Your task to perform on an android device: What's the weather today? Image 0: 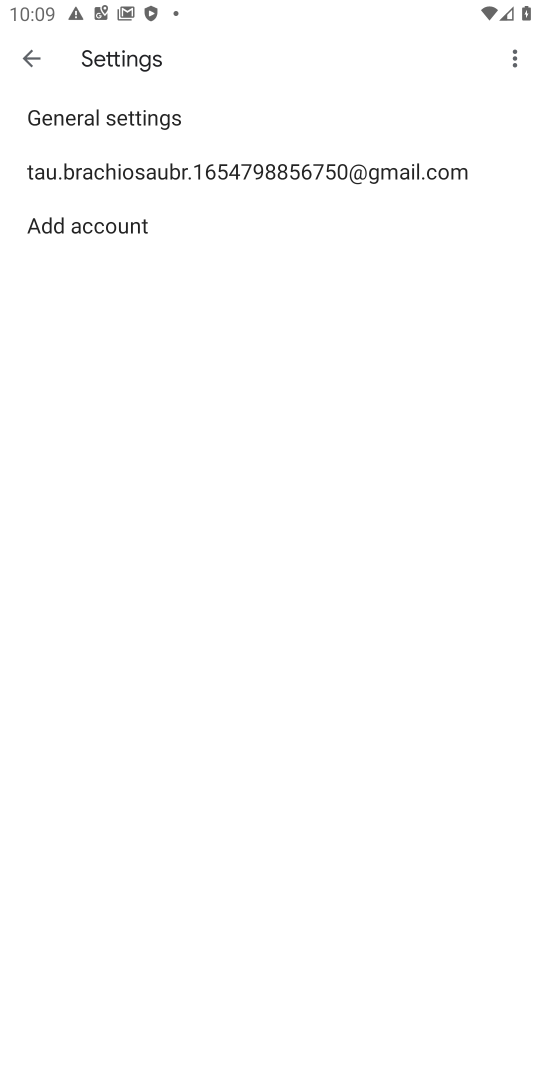
Step 0: press home button
Your task to perform on an android device: What's the weather today? Image 1: 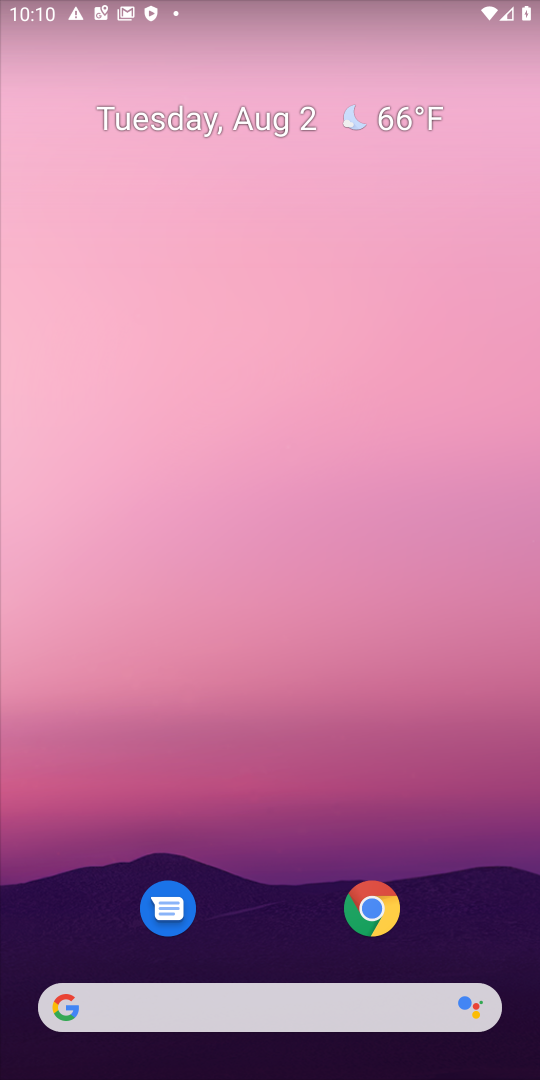
Step 1: click (146, 1006)
Your task to perform on an android device: What's the weather today? Image 2: 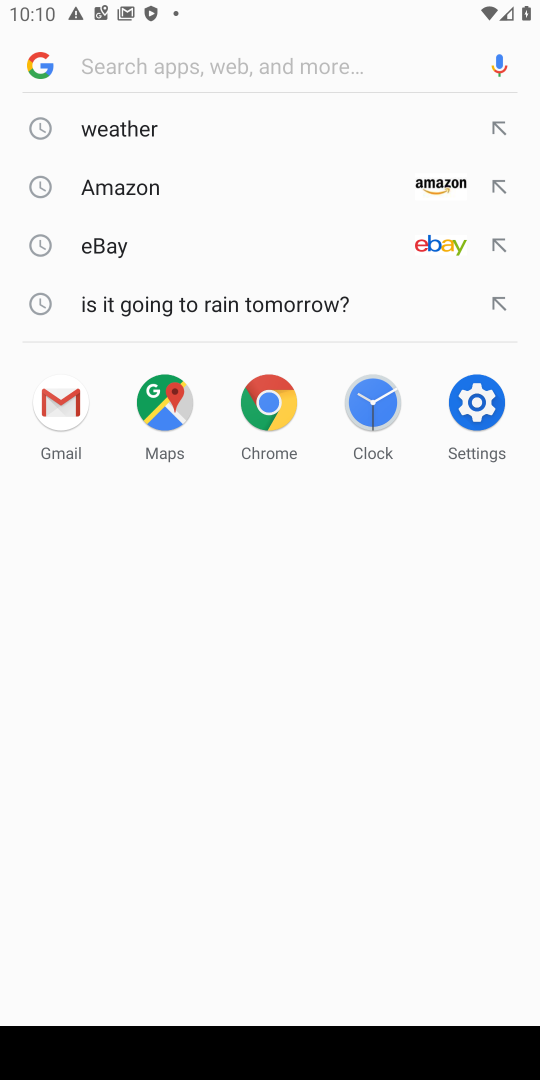
Step 2: click (153, 133)
Your task to perform on an android device: What's the weather today? Image 3: 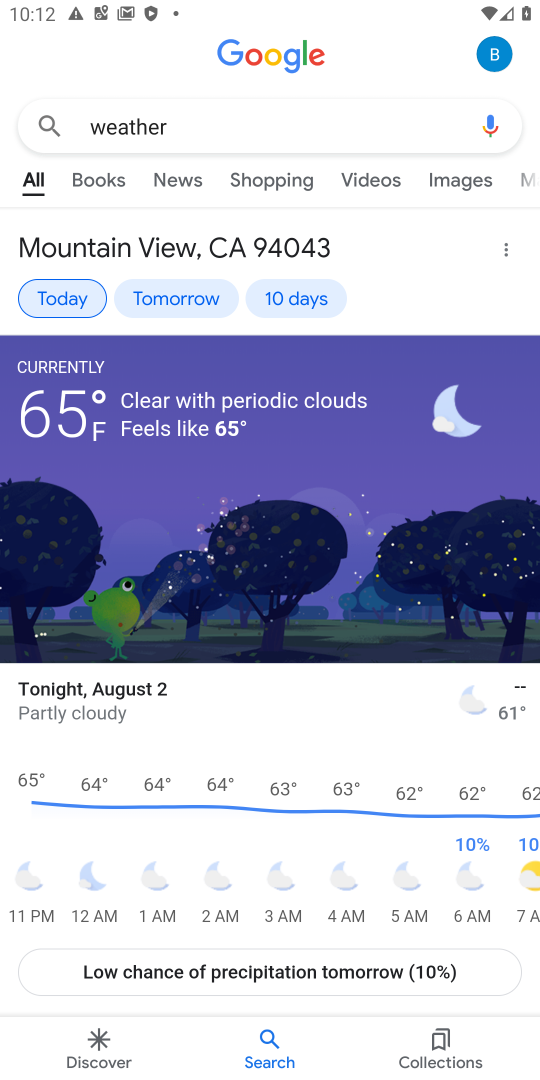
Step 3: task complete